Your task to perform on an android device: Open the calendar and show me this week's events? Image 0: 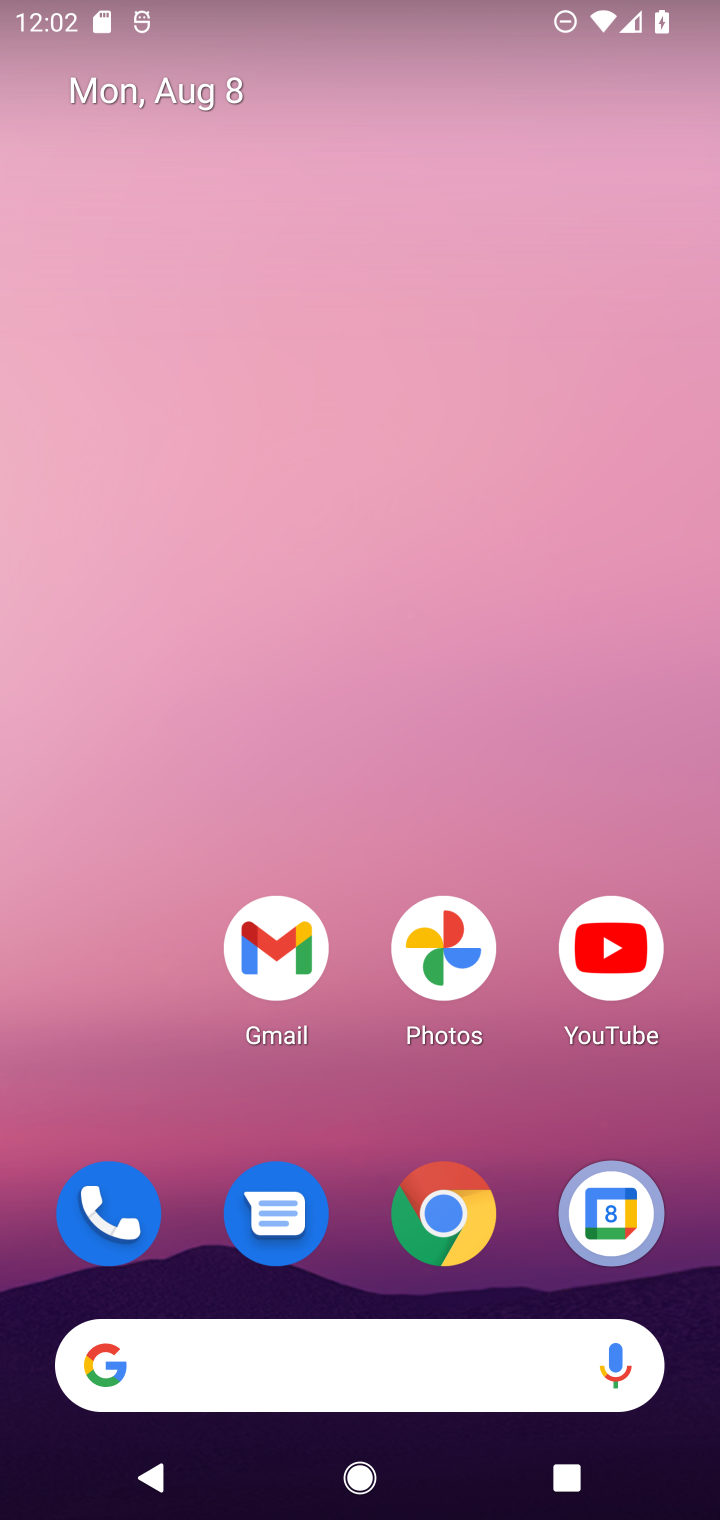
Step 0: drag from (367, 1092) to (368, 184)
Your task to perform on an android device: Open the calendar and show me this week's events? Image 1: 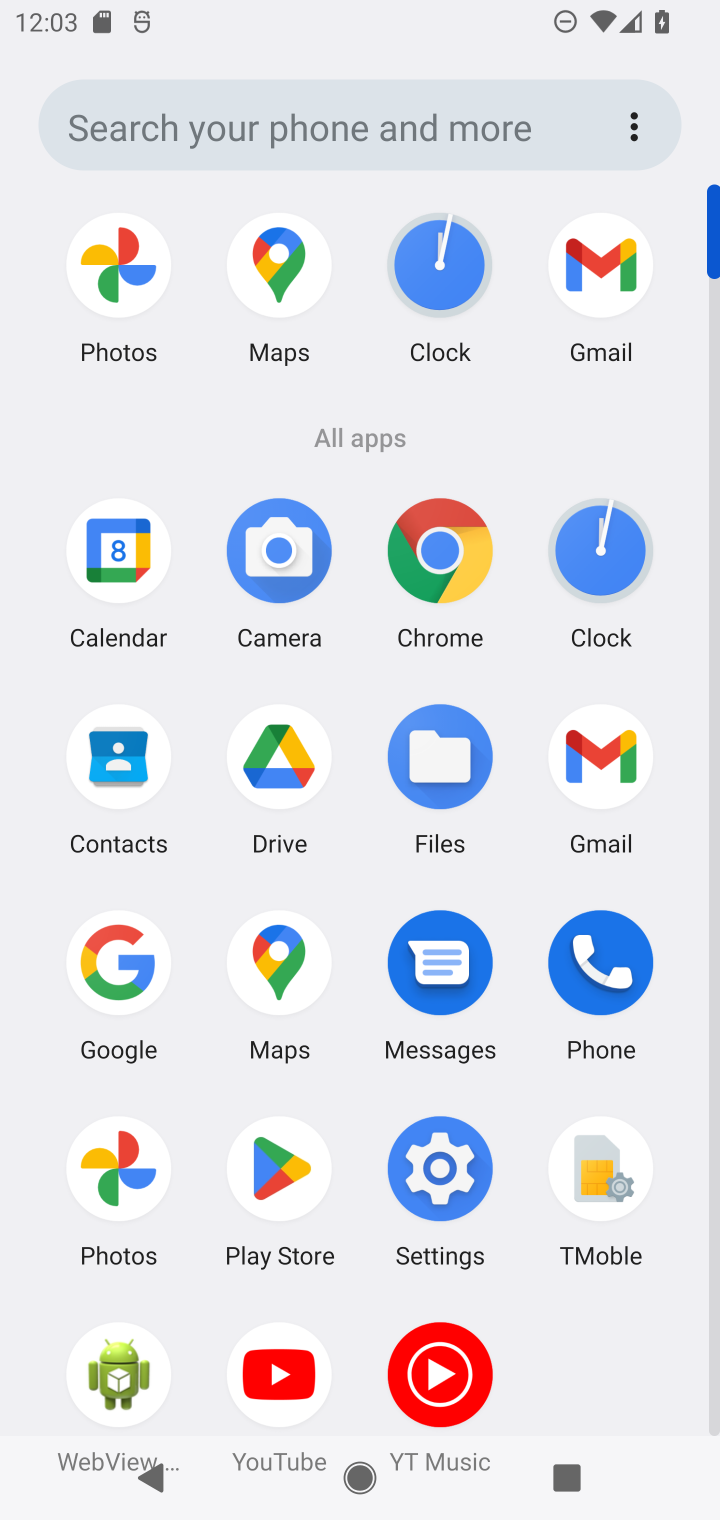
Step 1: click (106, 534)
Your task to perform on an android device: Open the calendar and show me this week's events? Image 2: 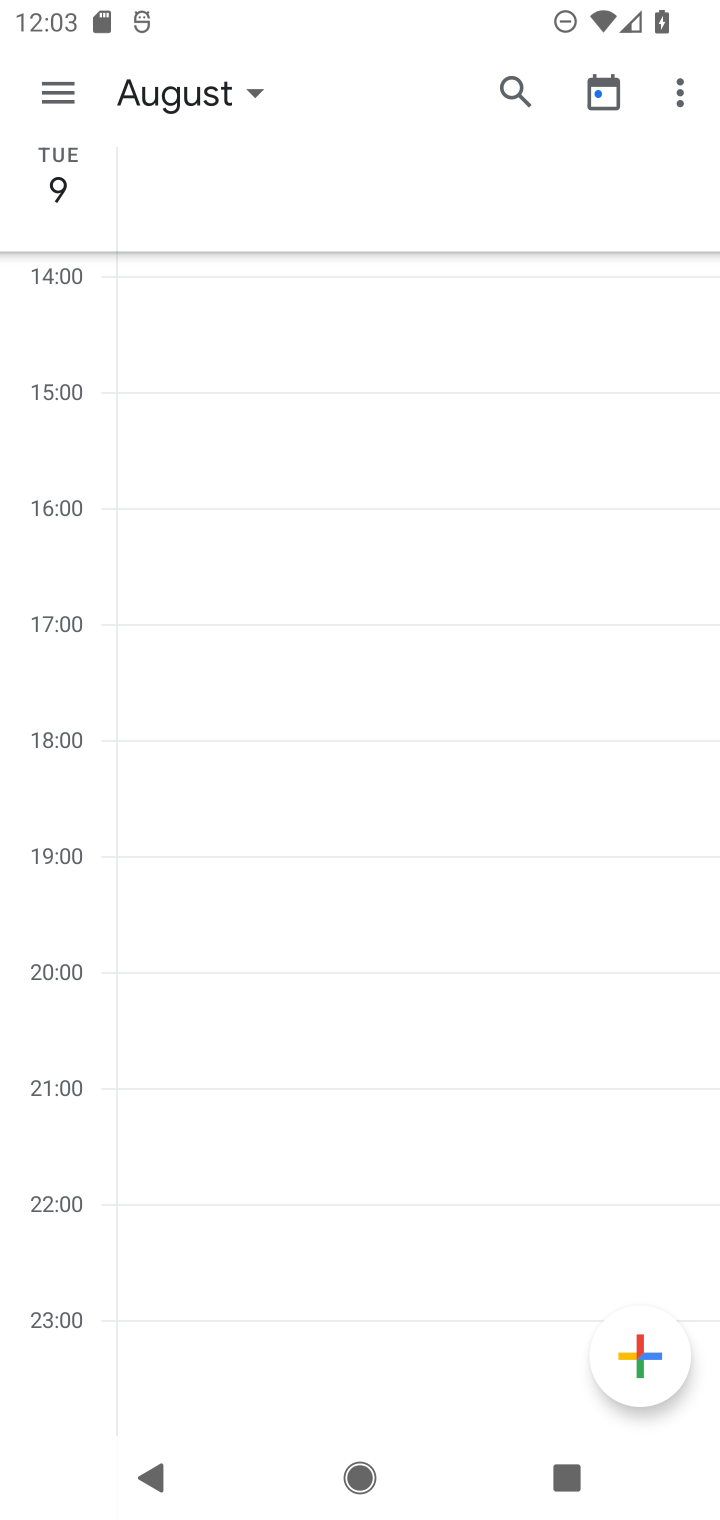
Step 2: click (246, 92)
Your task to perform on an android device: Open the calendar and show me this week's events? Image 3: 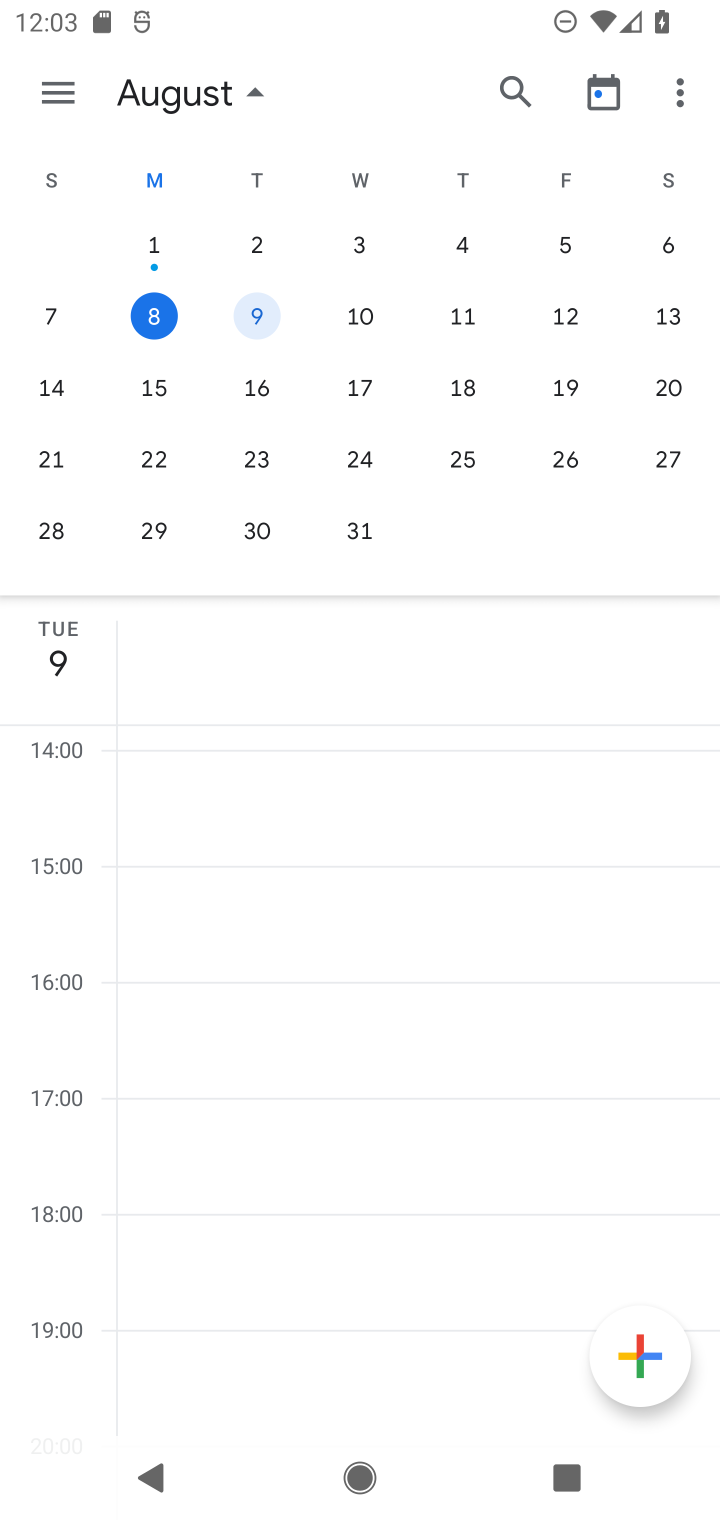
Step 3: click (77, 103)
Your task to perform on an android device: Open the calendar and show me this week's events? Image 4: 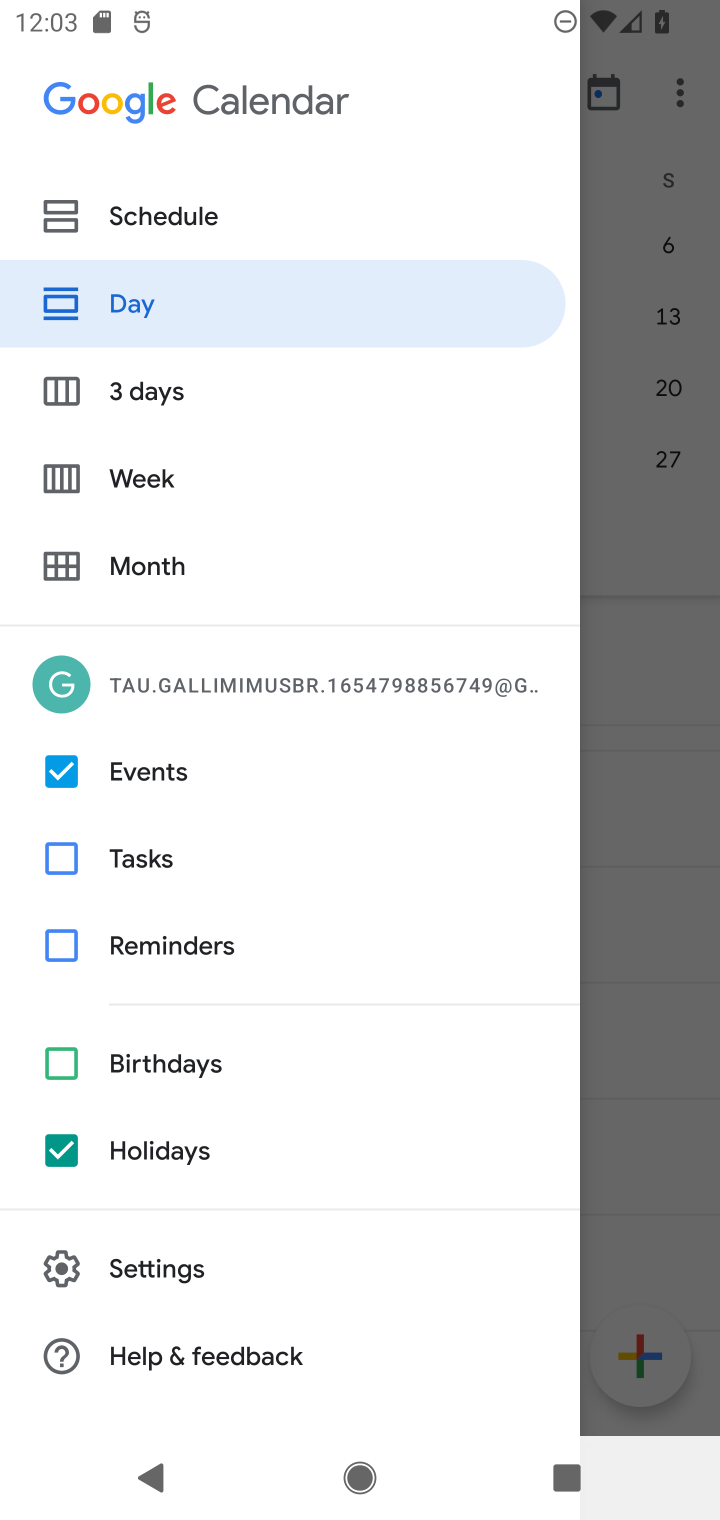
Step 4: click (149, 477)
Your task to perform on an android device: Open the calendar and show me this week's events? Image 5: 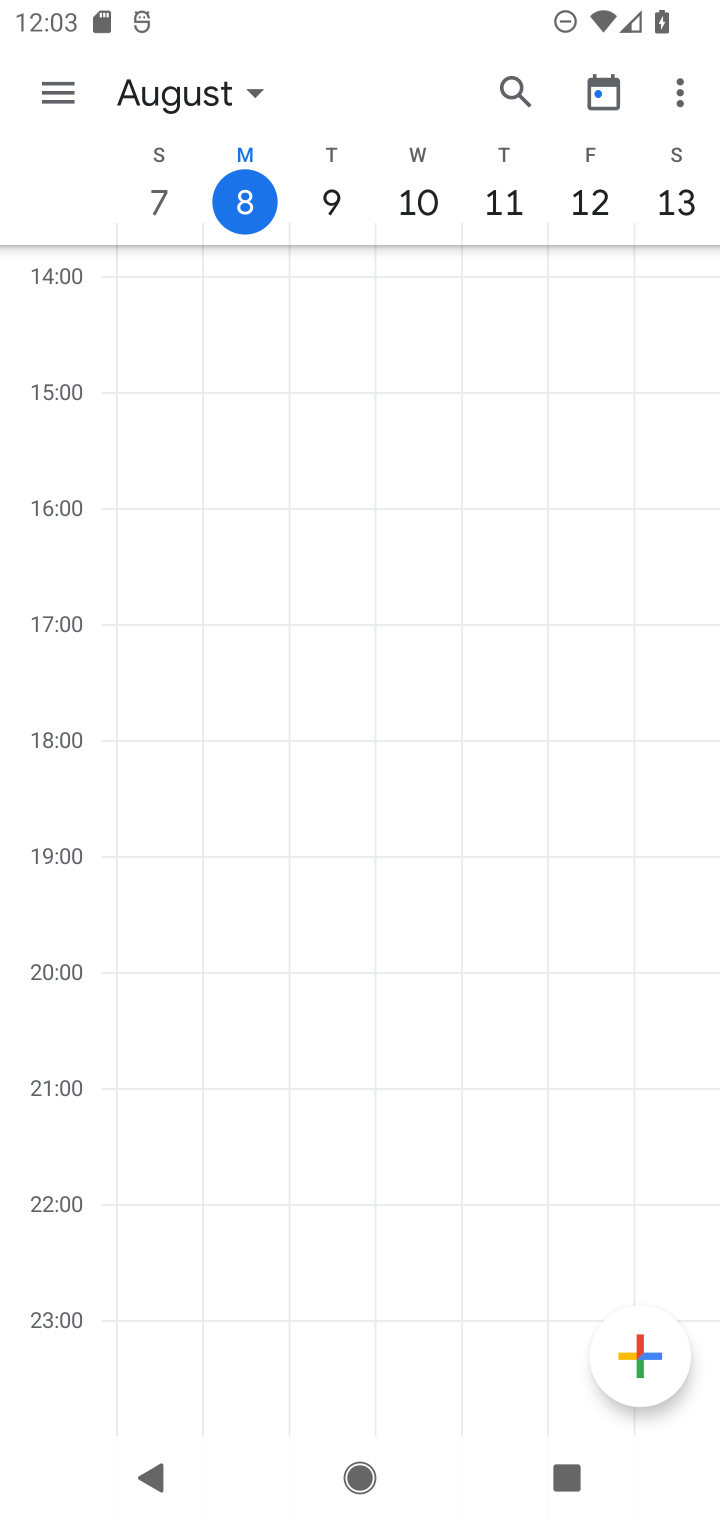
Step 5: click (63, 86)
Your task to perform on an android device: Open the calendar and show me this week's events? Image 6: 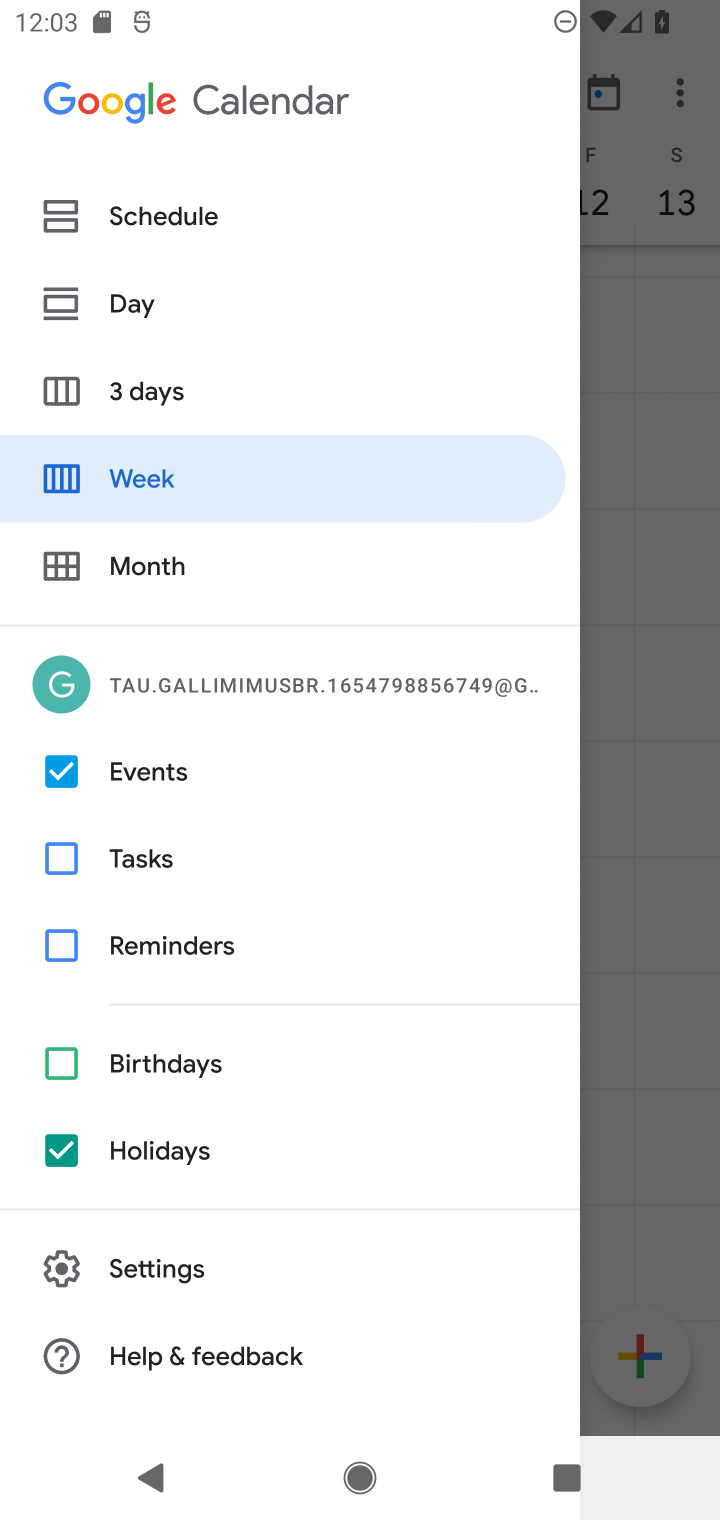
Step 6: click (63, 1141)
Your task to perform on an android device: Open the calendar and show me this week's events? Image 7: 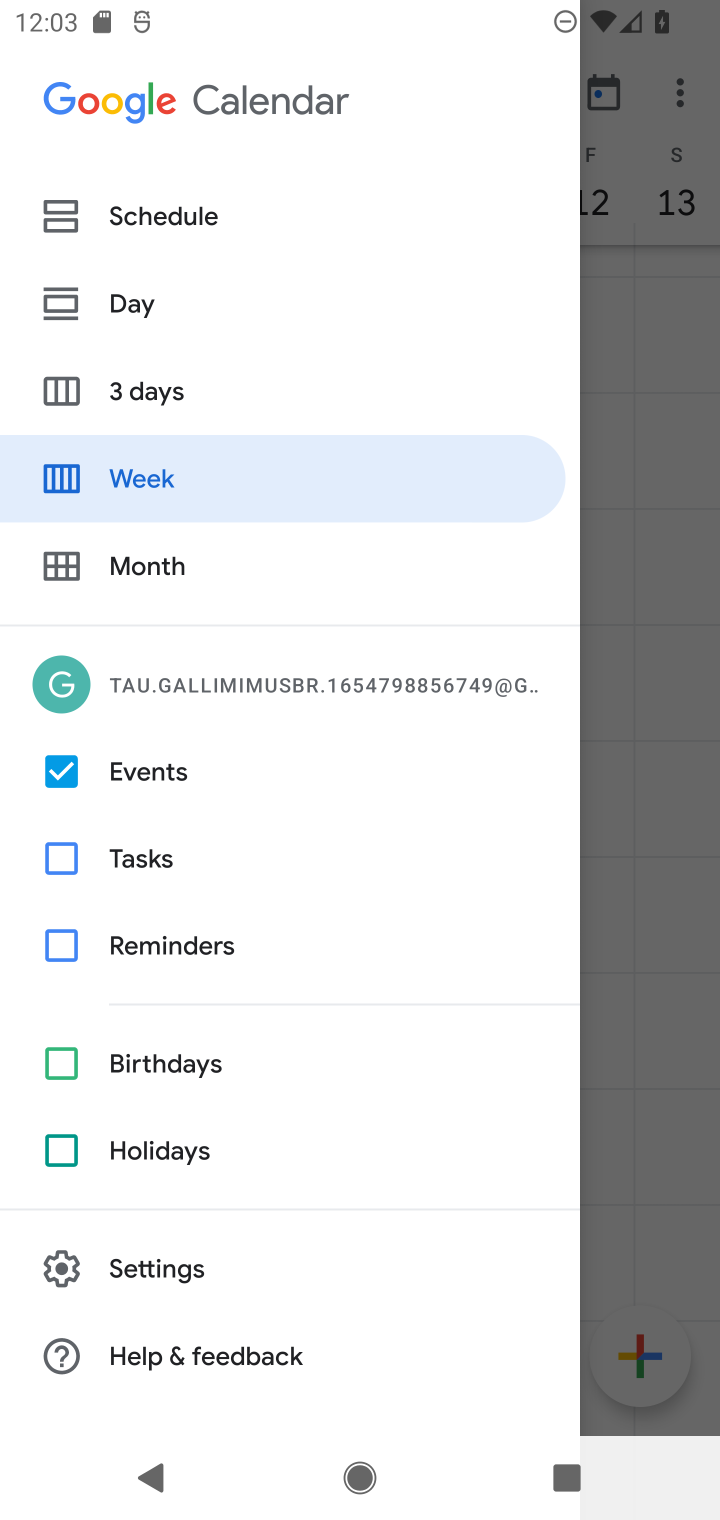
Step 7: click (99, 227)
Your task to perform on an android device: Open the calendar and show me this week's events? Image 8: 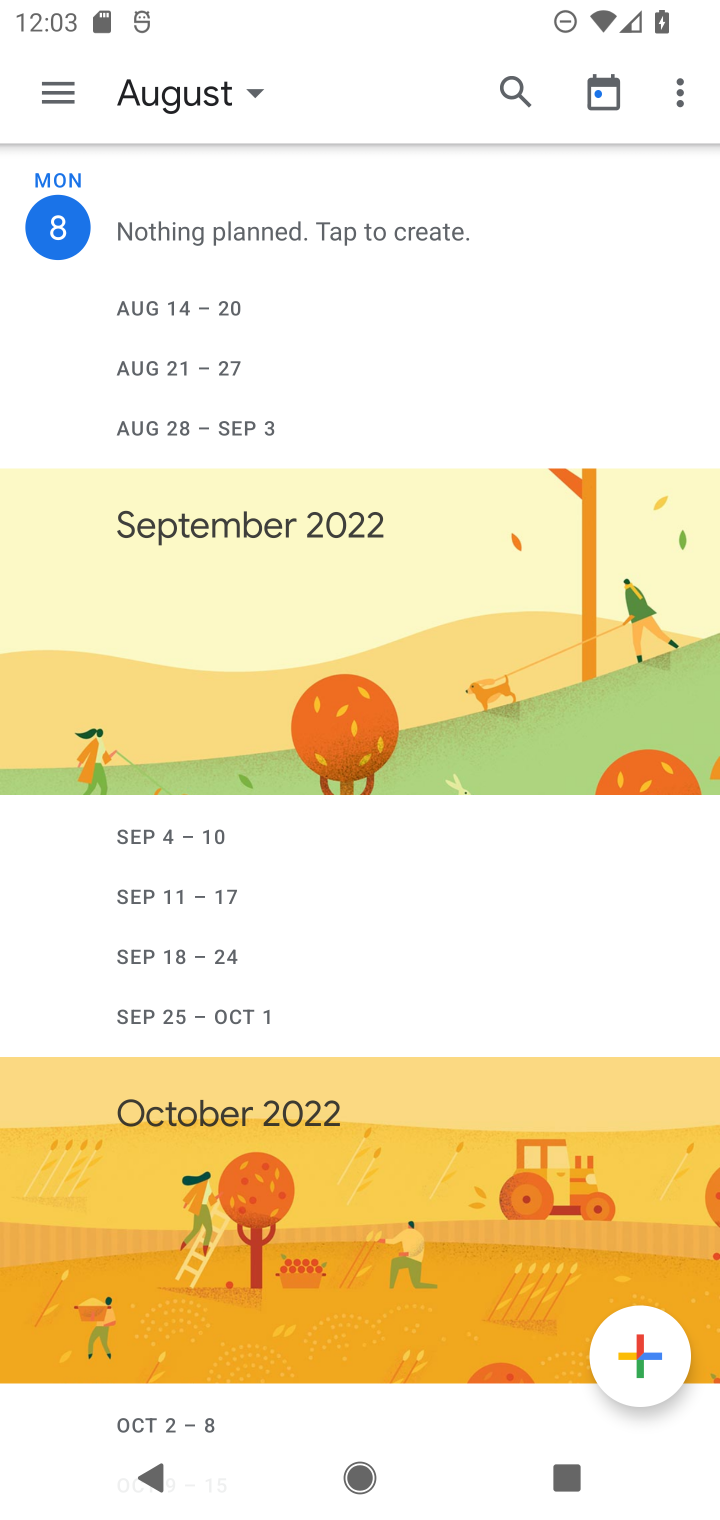
Step 8: click (253, 83)
Your task to perform on an android device: Open the calendar and show me this week's events? Image 9: 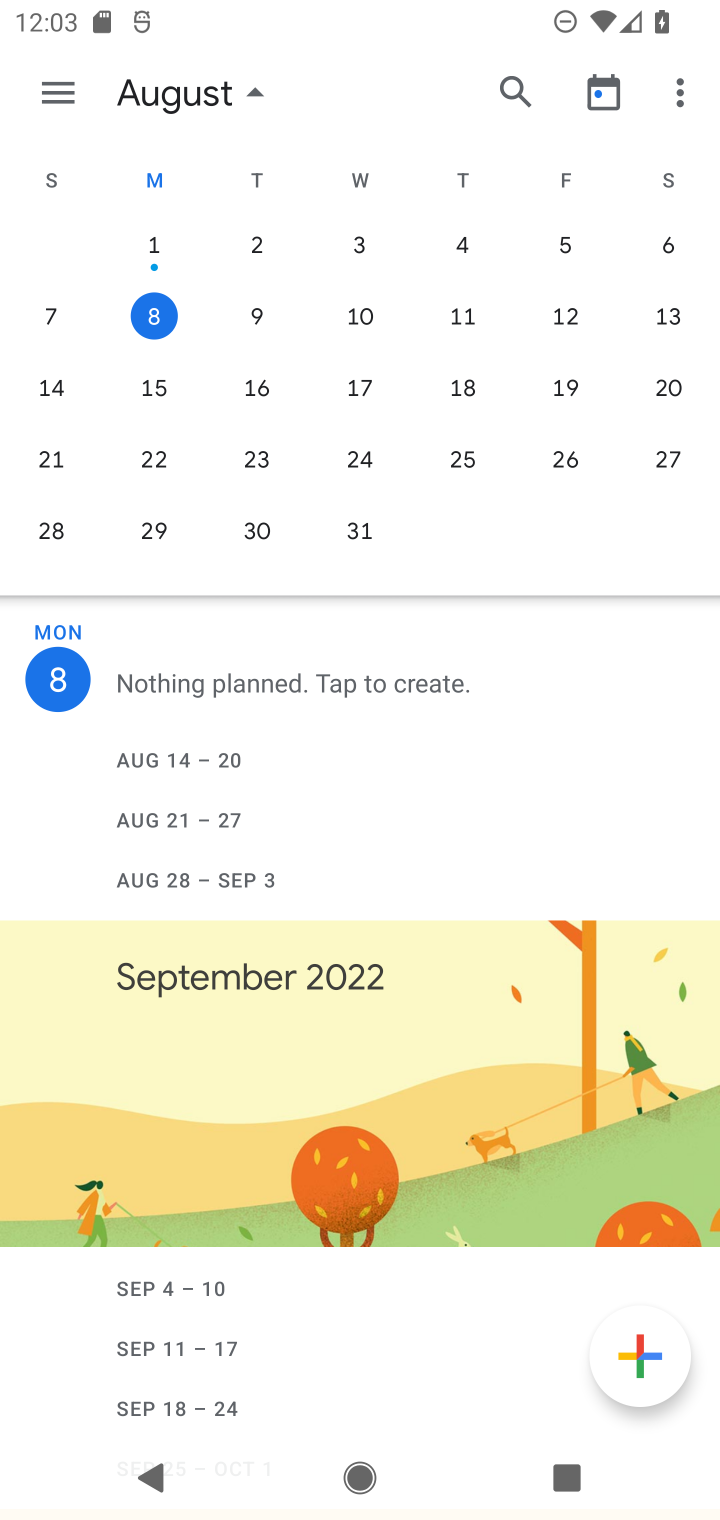
Step 9: task complete